Your task to perform on an android device: manage bookmarks in the chrome app Image 0: 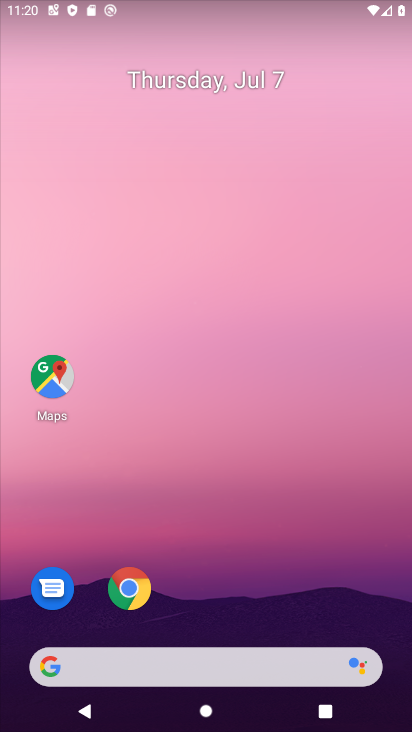
Step 0: click (129, 586)
Your task to perform on an android device: manage bookmarks in the chrome app Image 1: 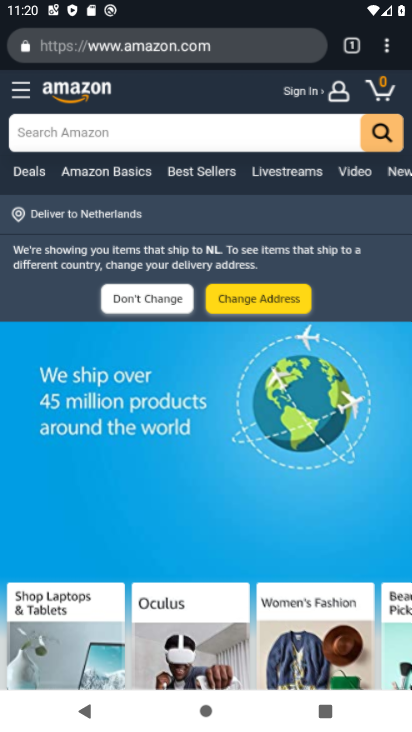
Step 1: click (386, 47)
Your task to perform on an android device: manage bookmarks in the chrome app Image 2: 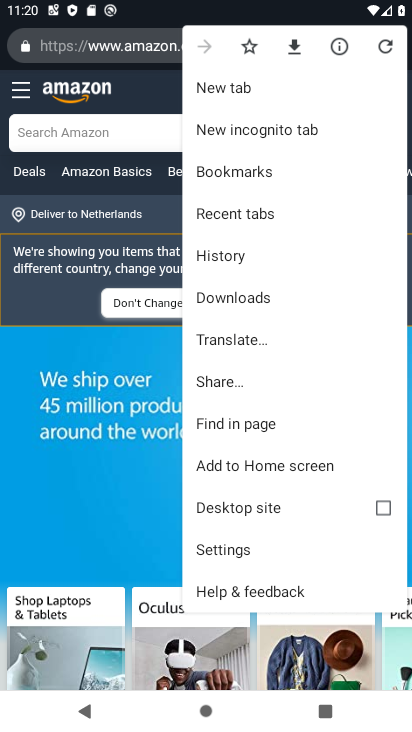
Step 2: click (250, 176)
Your task to perform on an android device: manage bookmarks in the chrome app Image 3: 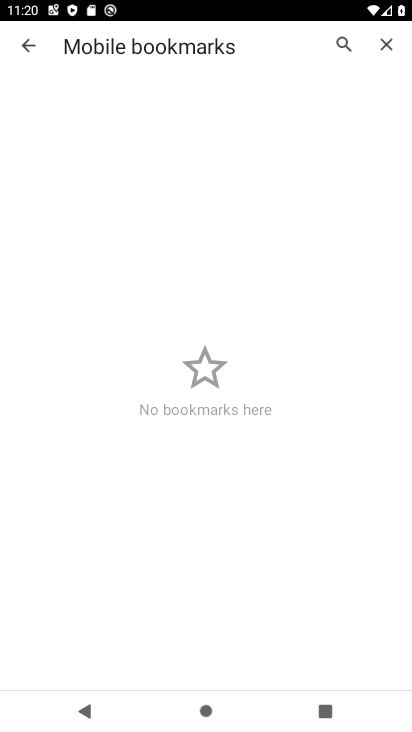
Step 3: task complete